Your task to perform on an android device: Open Wikipedia Image 0: 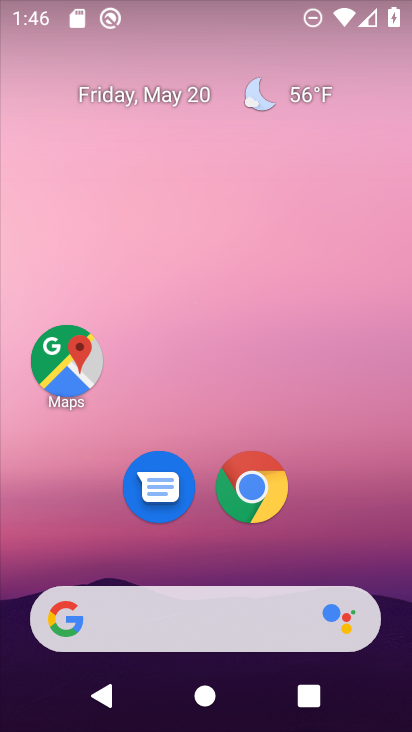
Step 0: press home button
Your task to perform on an android device: Open Wikipedia Image 1: 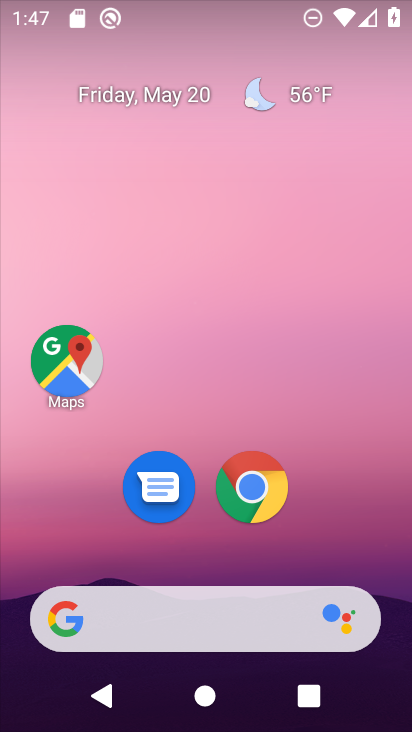
Step 1: click (252, 475)
Your task to perform on an android device: Open Wikipedia Image 2: 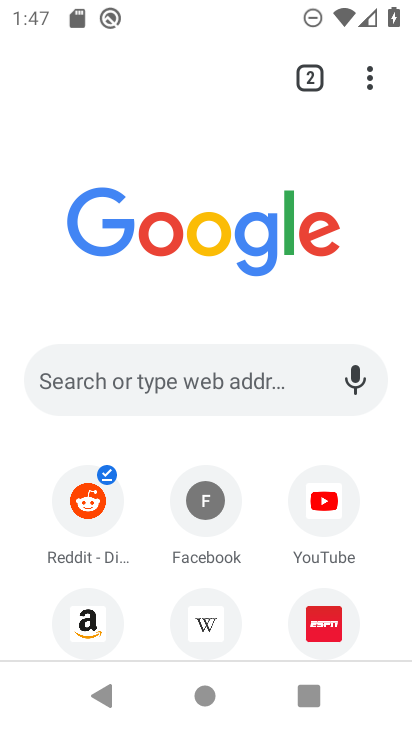
Step 2: click (193, 613)
Your task to perform on an android device: Open Wikipedia Image 3: 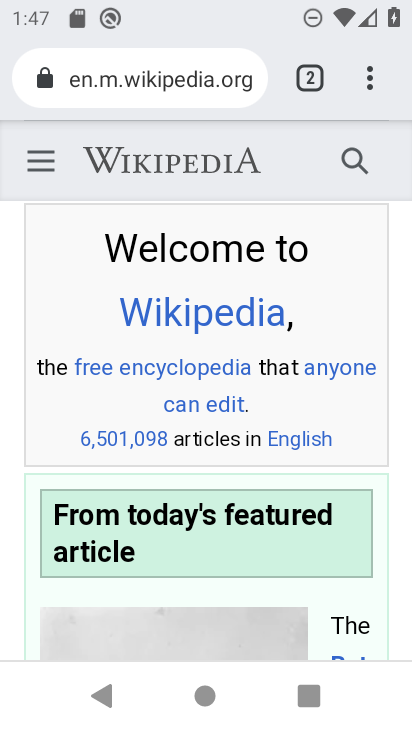
Step 3: task complete